Your task to perform on an android device: Open the web browser Image 0: 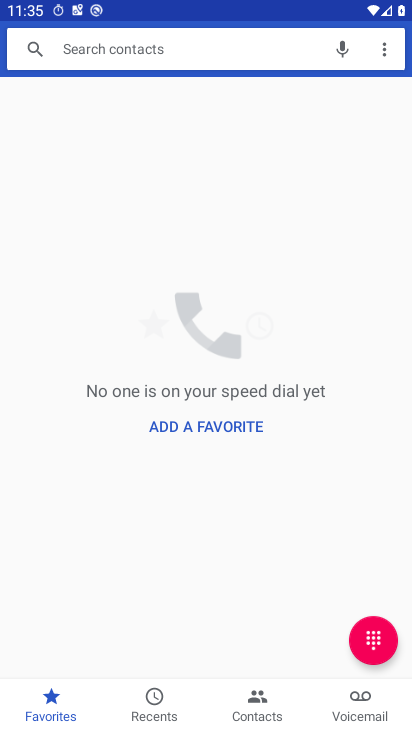
Step 0: press home button
Your task to perform on an android device: Open the web browser Image 1: 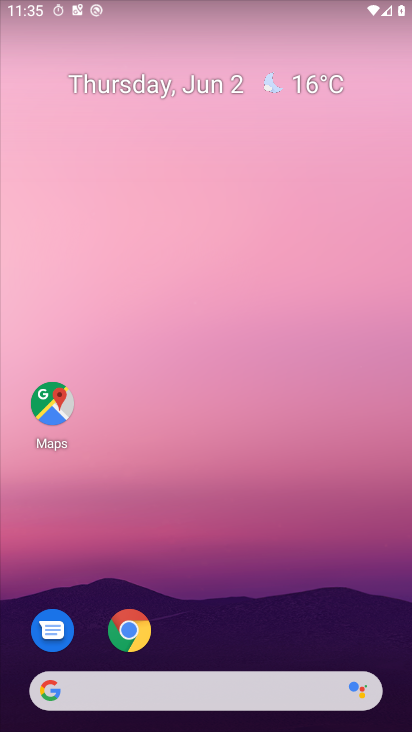
Step 1: click (128, 636)
Your task to perform on an android device: Open the web browser Image 2: 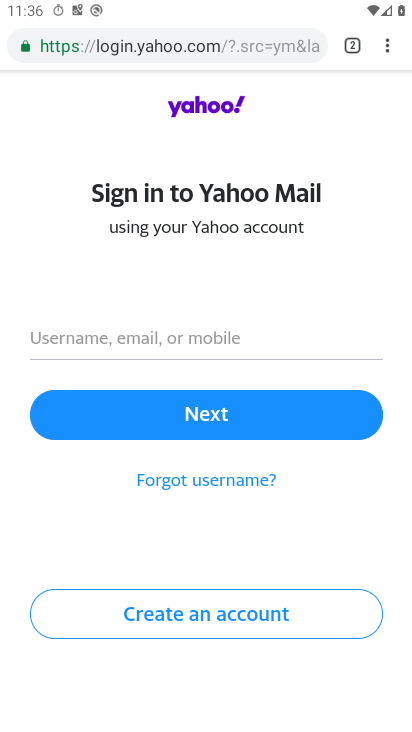
Step 2: task complete